Your task to perform on an android device: Open battery settings Image 0: 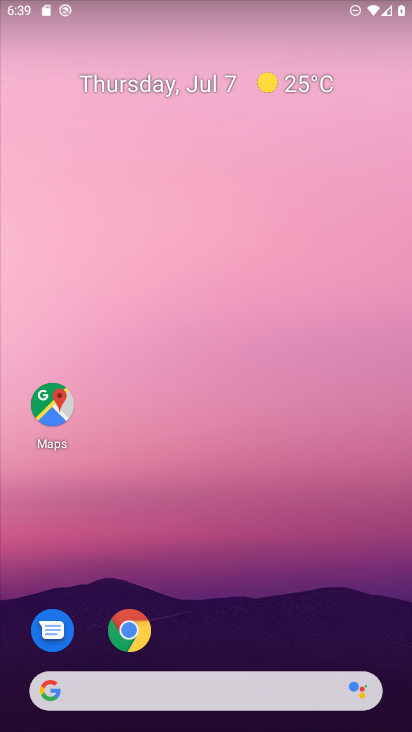
Step 0: drag from (234, 556) to (157, 103)
Your task to perform on an android device: Open battery settings Image 1: 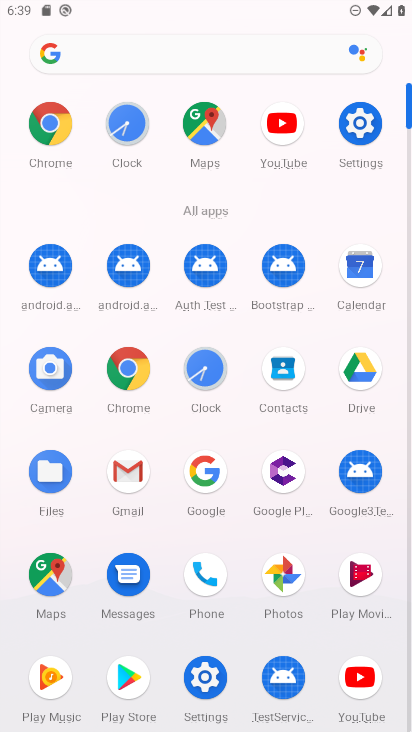
Step 1: click (360, 126)
Your task to perform on an android device: Open battery settings Image 2: 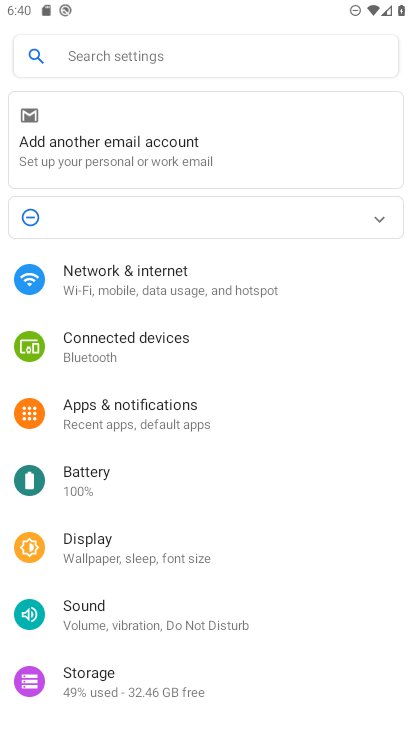
Step 2: click (79, 480)
Your task to perform on an android device: Open battery settings Image 3: 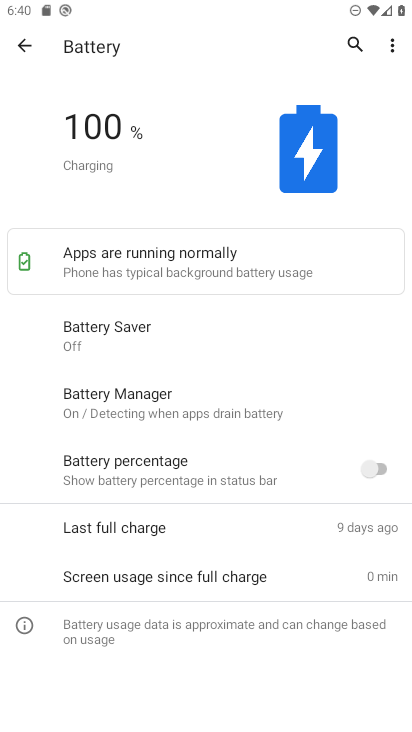
Step 3: task complete